Your task to perform on an android device: Open Amazon Image 0: 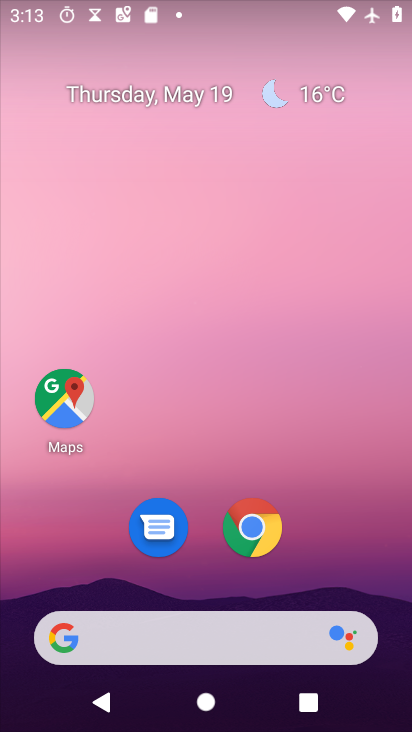
Step 0: drag from (310, 397) to (236, 0)
Your task to perform on an android device: Open Amazon Image 1: 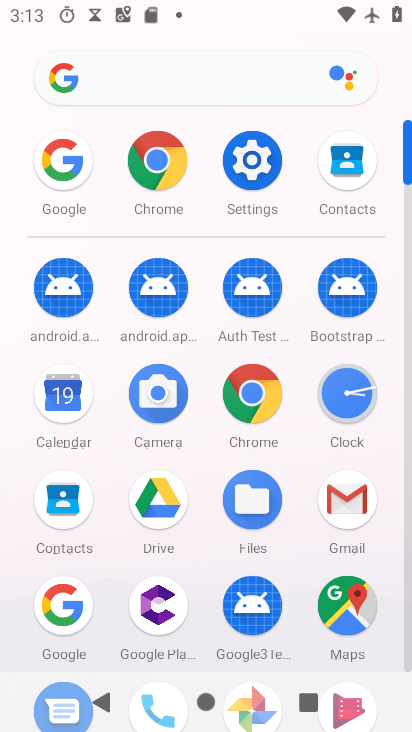
Step 1: click (269, 400)
Your task to perform on an android device: Open Amazon Image 2: 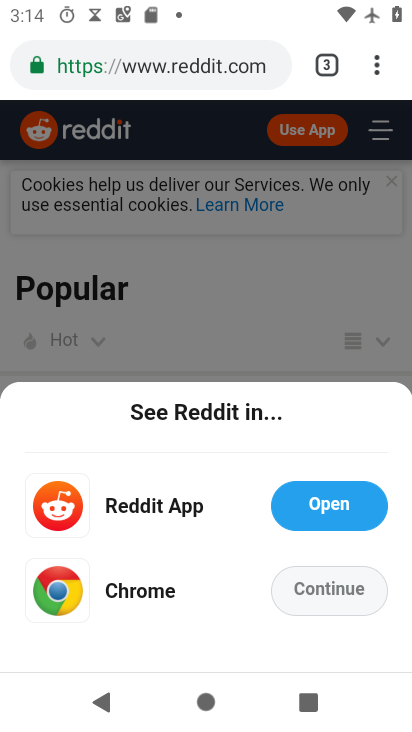
Step 2: click (332, 50)
Your task to perform on an android device: Open Amazon Image 3: 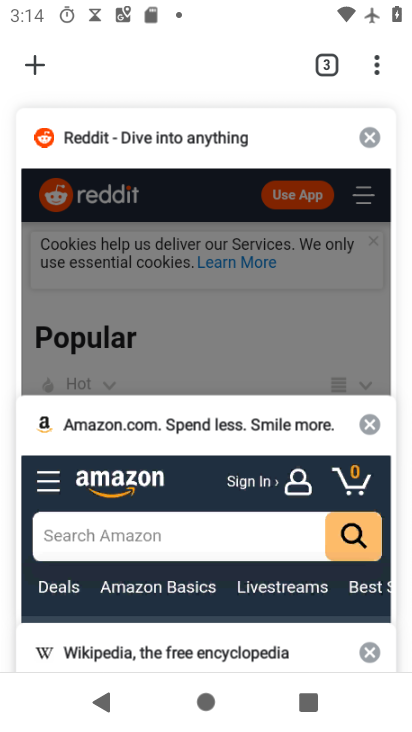
Step 3: click (148, 451)
Your task to perform on an android device: Open Amazon Image 4: 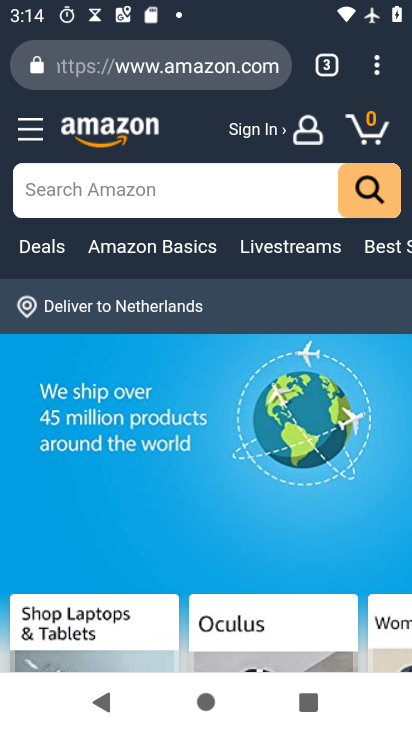
Step 4: task complete